Your task to perform on an android device: Open Chrome and go to the settings page Image 0: 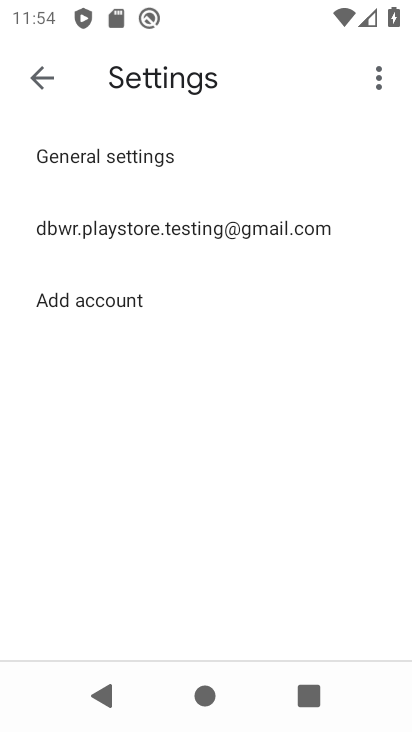
Step 0: click (48, 70)
Your task to perform on an android device: Open Chrome and go to the settings page Image 1: 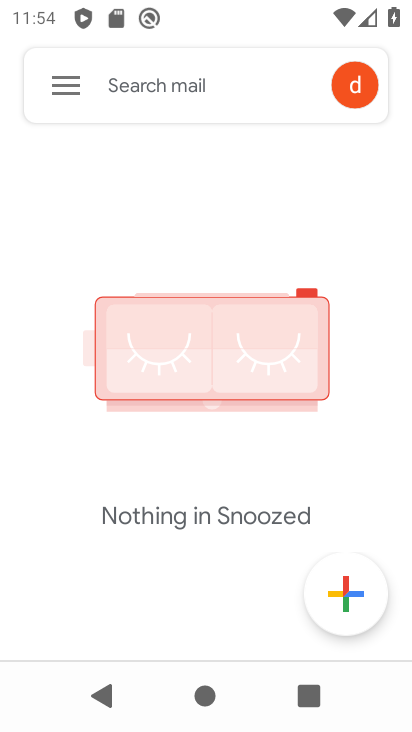
Step 1: press home button
Your task to perform on an android device: Open Chrome and go to the settings page Image 2: 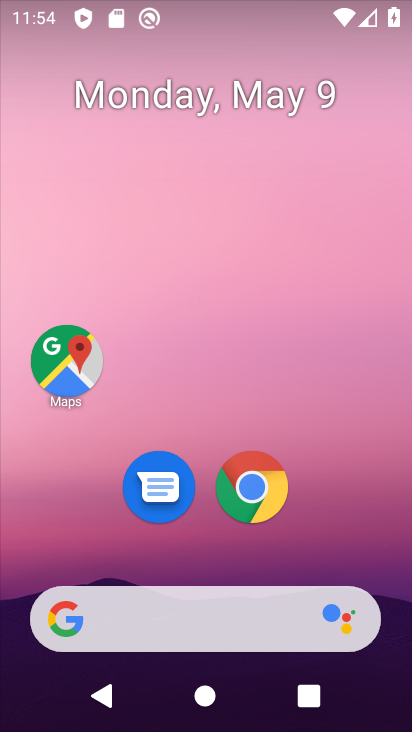
Step 2: click (275, 516)
Your task to perform on an android device: Open Chrome and go to the settings page Image 3: 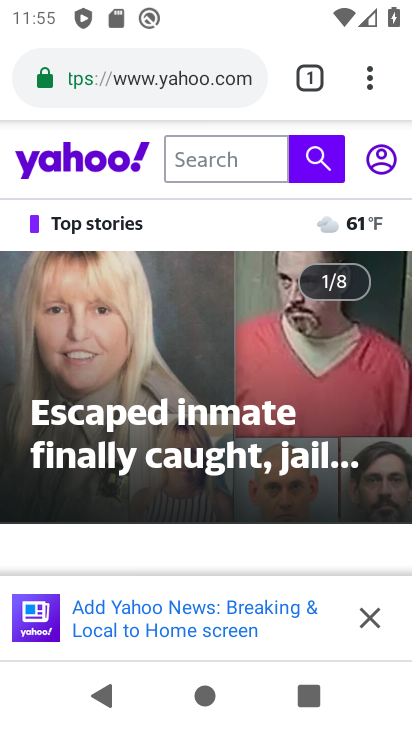
Step 3: click (367, 72)
Your task to perform on an android device: Open Chrome and go to the settings page Image 4: 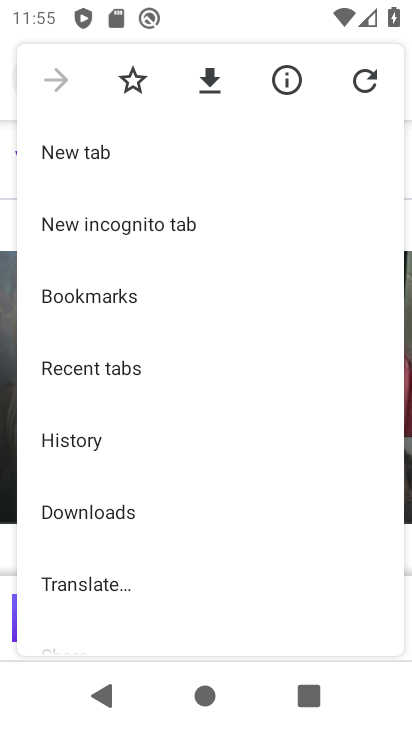
Step 4: drag from (189, 522) to (228, 231)
Your task to perform on an android device: Open Chrome and go to the settings page Image 5: 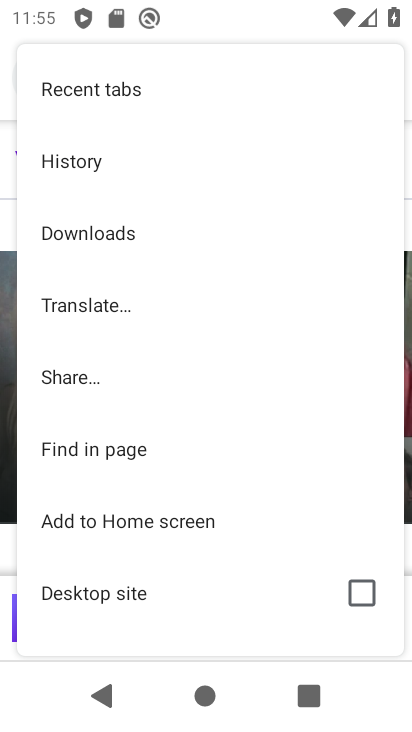
Step 5: drag from (232, 600) to (238, 421)
Your task to perform on an android device: Open Chrome and go to the settings page Image 6: 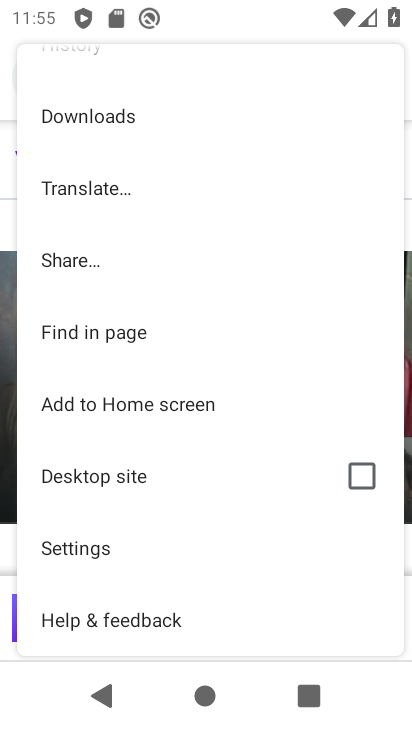
Step 6: click (217, 540)
Your task to perform on an android device: Open Chrome and go to the settings page Image 7: 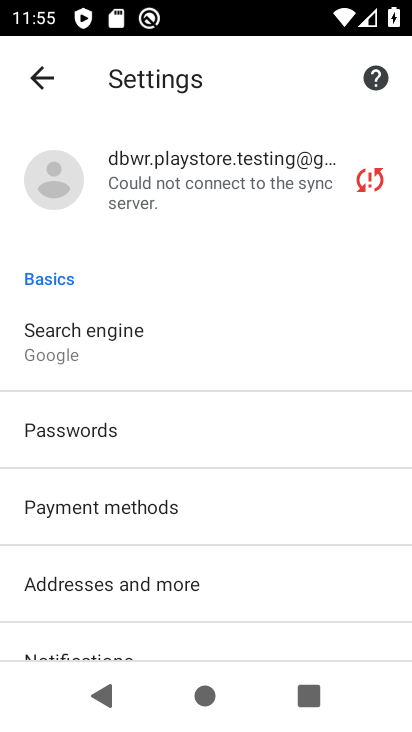
Step 7: task complete